Your task to perform on an android device: Find coffee shops on Maps Image 0: 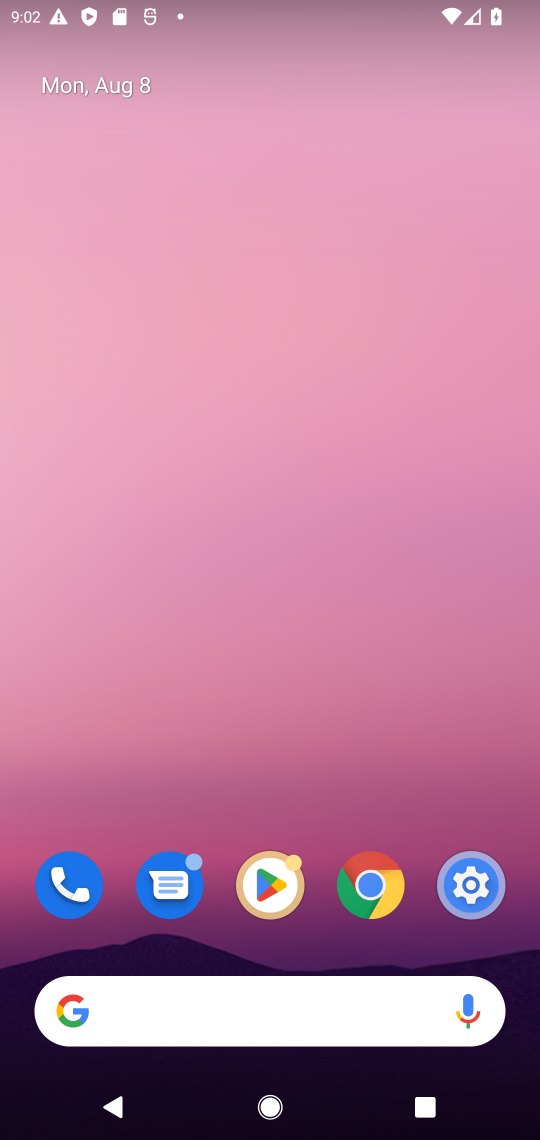
Step 0: drag from (375, 924) to (385, 2)
Your task to perform on an android device: Find coffee shops on Maps Image 1: 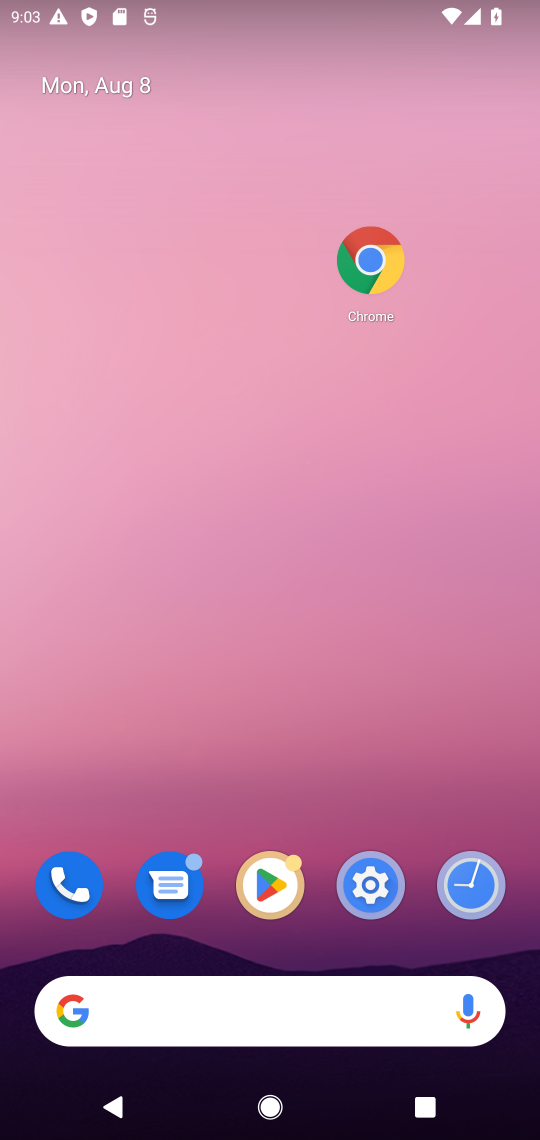
Step 1: drag from (228, 840) to (311, 74)
Your task to perform on an android device: Find coffee shops on Maps Image 2: 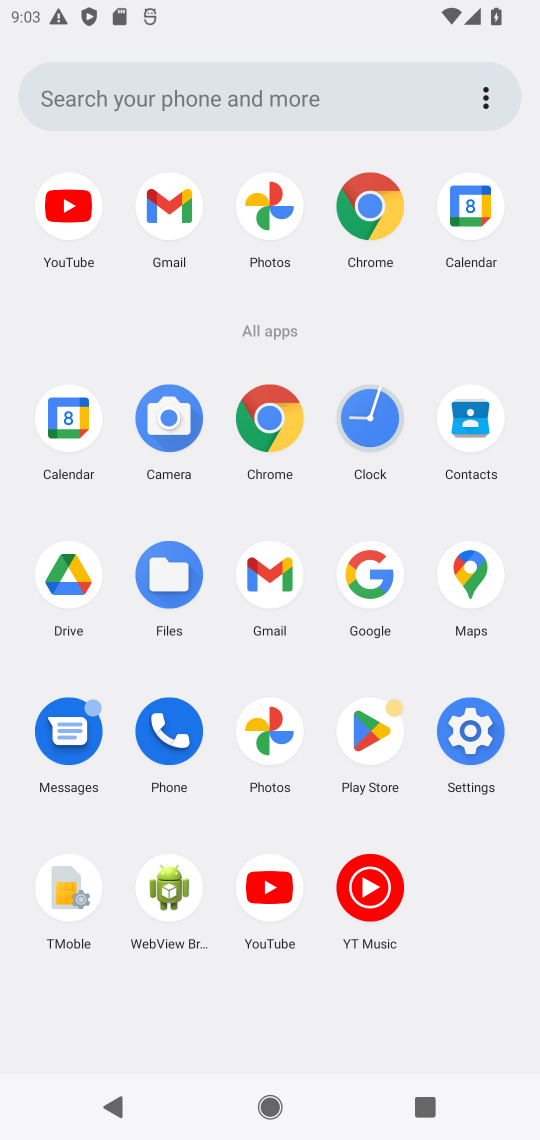
Step 2: drag from (321, 657) to (299, 84)
Your task to perform on an android device: Find coffee shops on Maps Image 3: 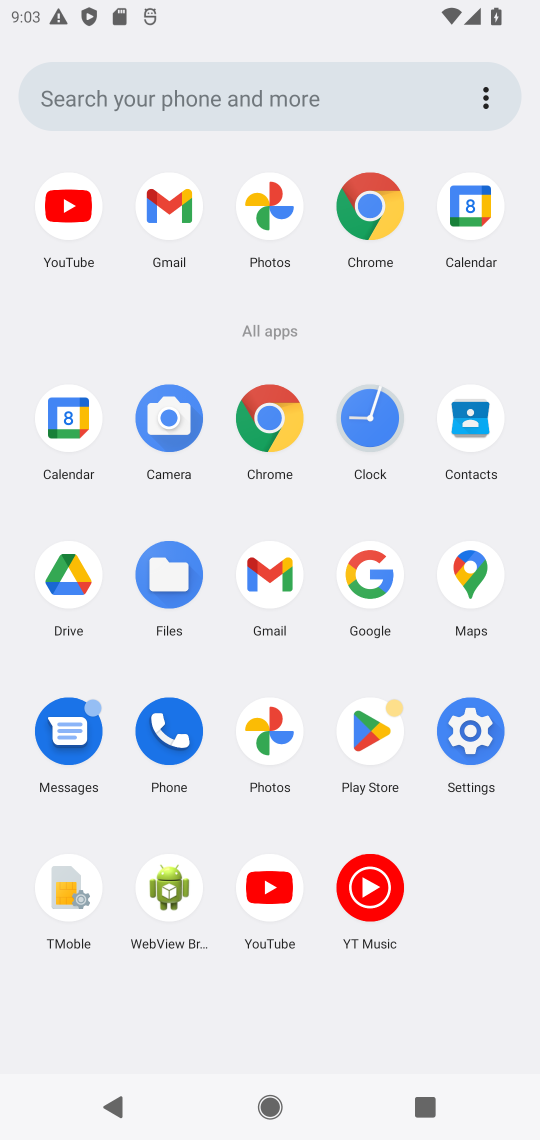
Step 3: click (472, 578)
Your task to perform on an android device: Find coffee shops on Maps Image 4: 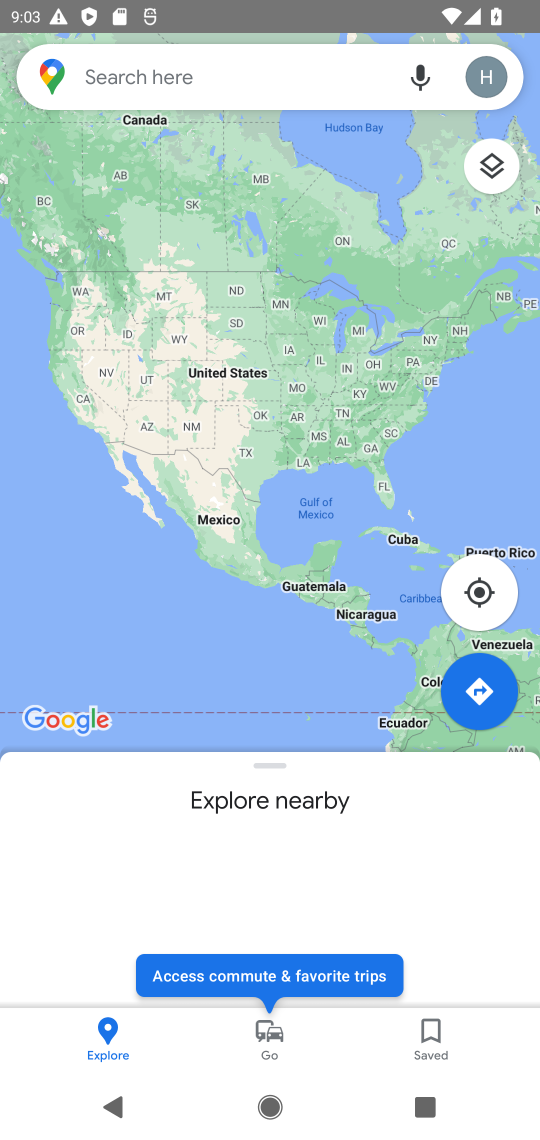
Step 4: click (142, 87)
Your task to perform on an android device: Find coffee shops on Maps Image 5: 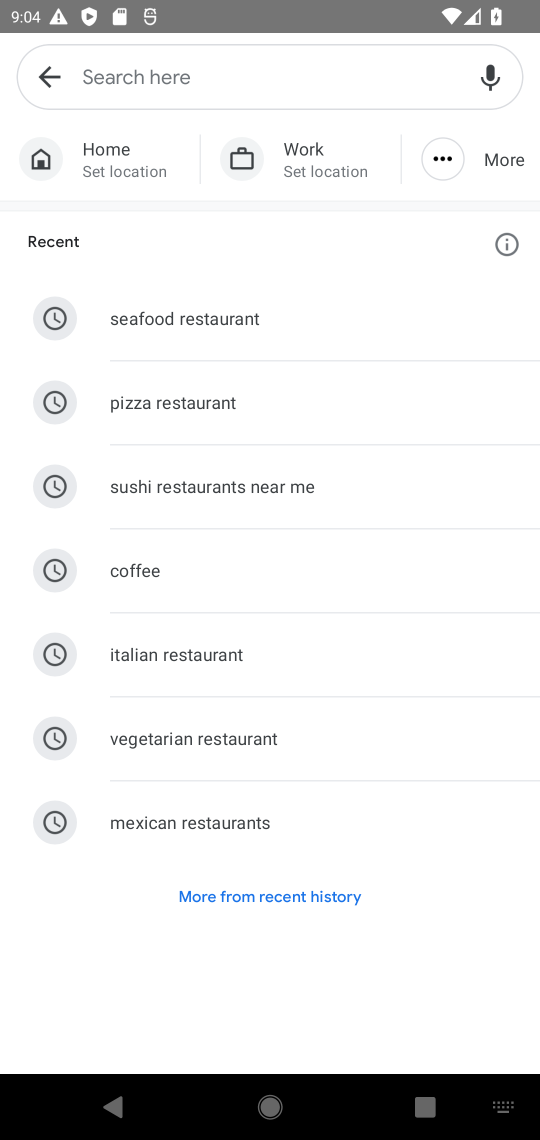
Step 5: type "Mexican restaurants "
Your task to perform on an android device: Find coffee shops on Maps Image 6: 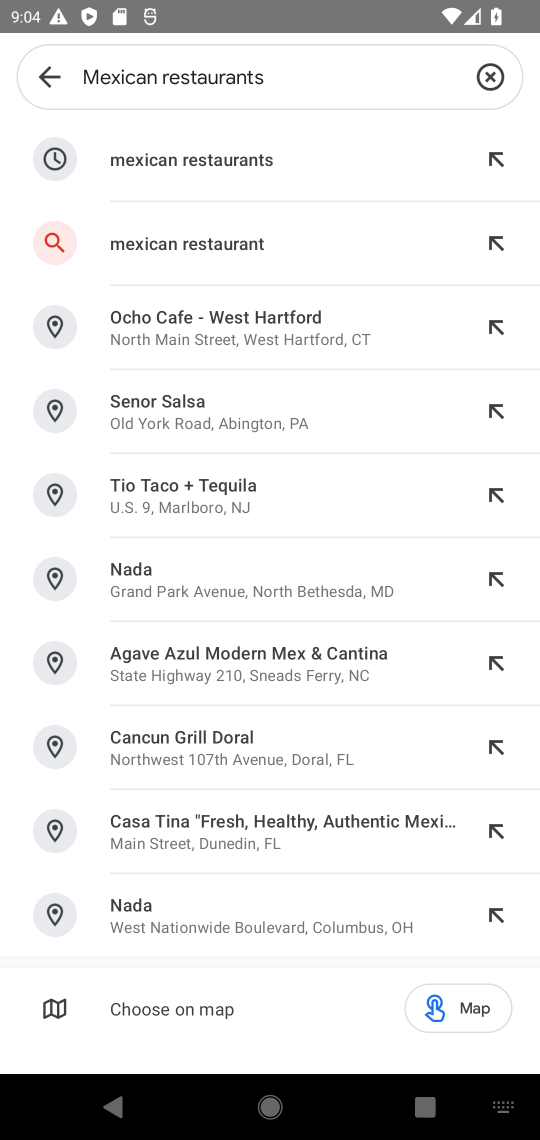
Step 6: click (188, 147)
Your task to perform on an android device: Find coffee shops on Maps Image 7: 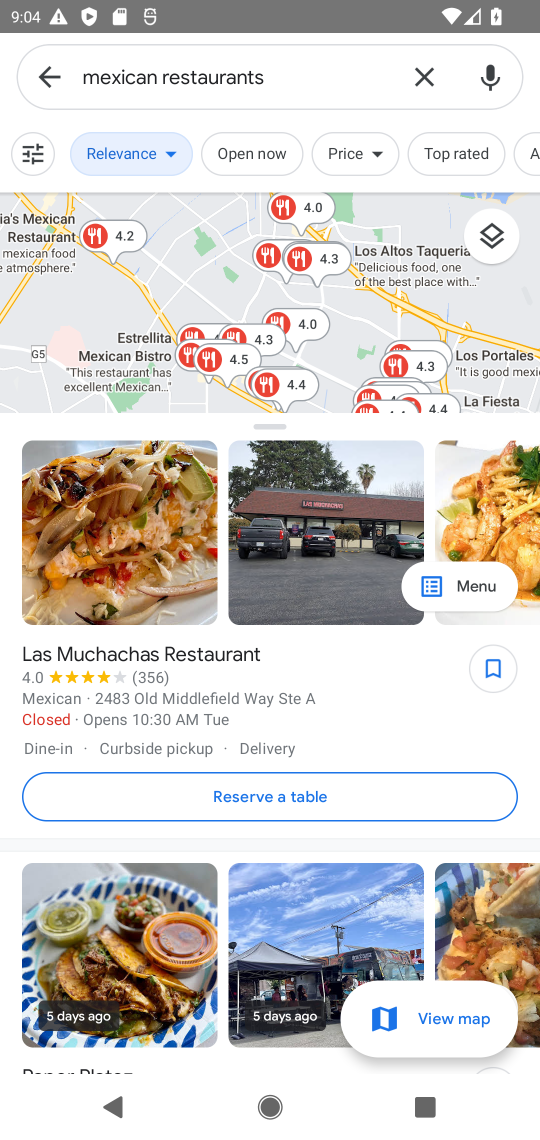
Step 7: click (439, 80)
Your task to perform on an android device: Find coffee shops on Maps Image 8: 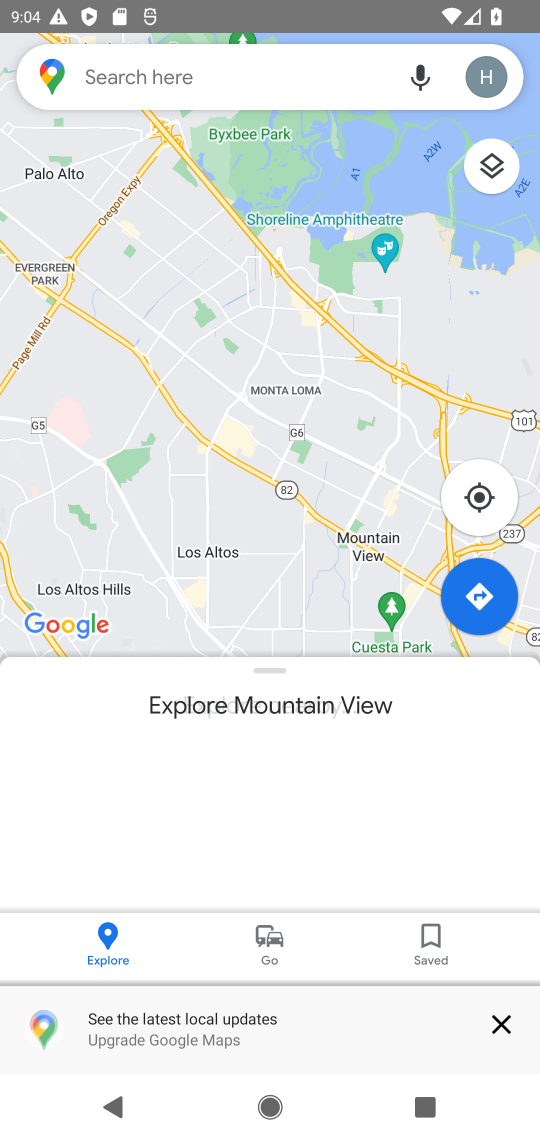
Step 8: click (366, 67)
Your task to perform on an android device: Find coffee shops on Maps Image 9: 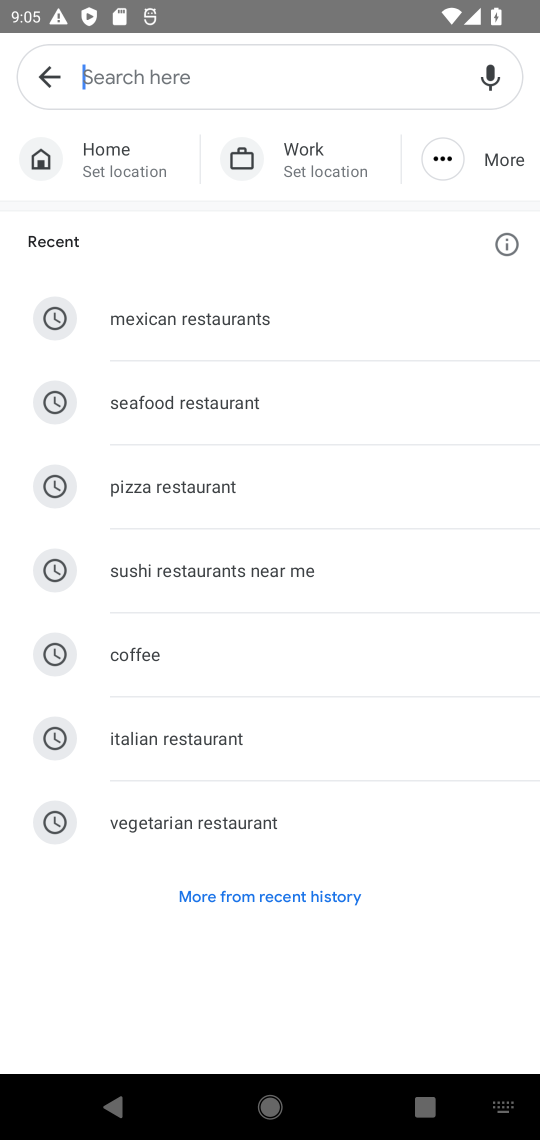
Step 9: type "coffee shops"
Your task to perform on an android device: Find coffee shops on Maps Image 10: 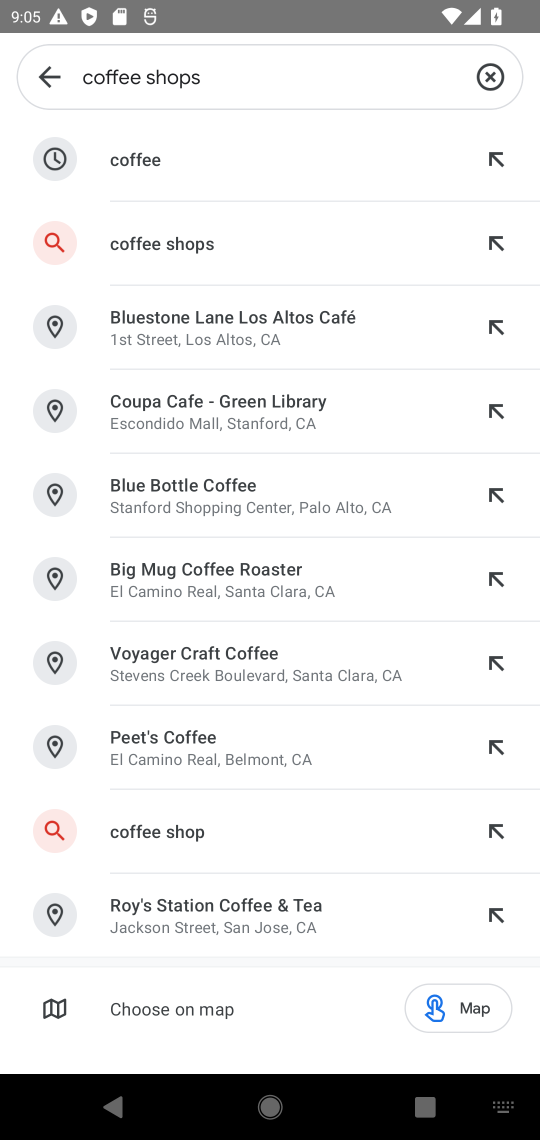
Step 10: click (123, 245)
Your task to perform on an android device: Find coffee shops on Maps Image 11: 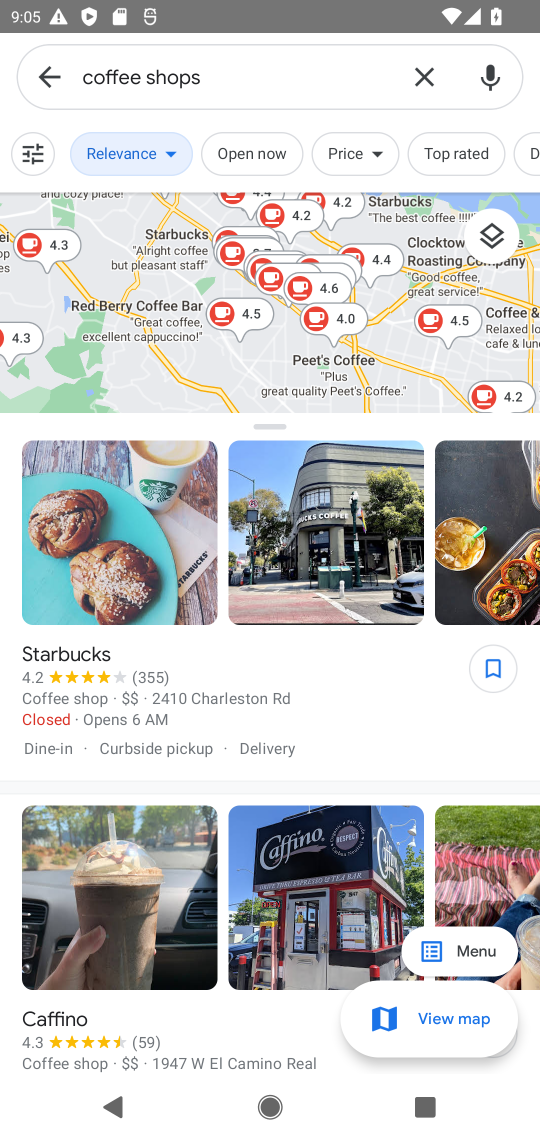
Step 11: task complete